Your task to perform on an android device: see tabs open on other devices in the chrome app Image 0: 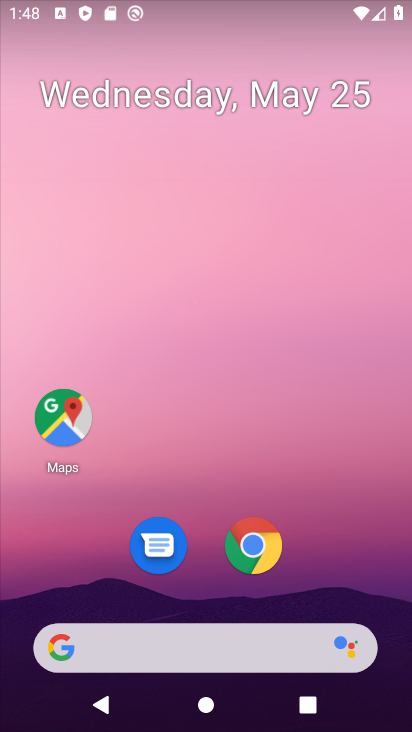
Step 0: click (277, 560)
Your task to perform on an android device: see tabs open on other devices in the chrome app Image 1: 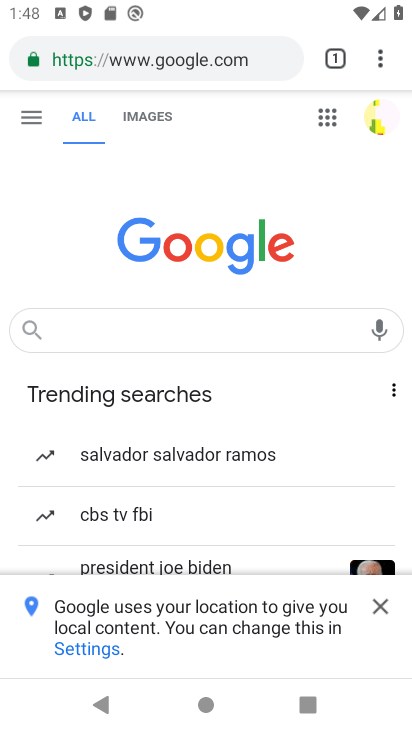
Step 1: click (387, 59)
Your task to perform on an android device: see tabs open on other devices in the chrome app Image 2: 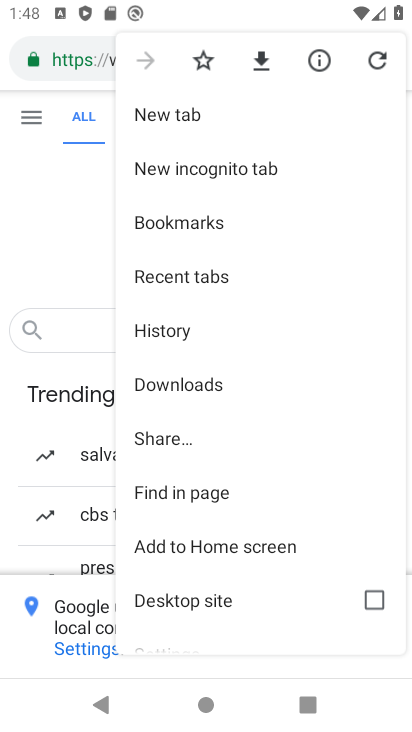
Step 2: click (201, 291)
Your task to perform on an android device: see tabs open on other devices in the chrome app Image 3: 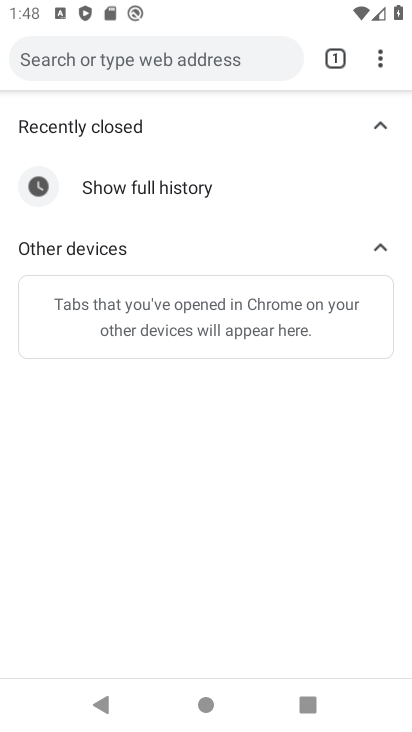
Step 3: task complete